Your task to perform on an android device: Search for logitech g933 on walmart, select the first entry, add it to the cart, then select checkout. Image 0: 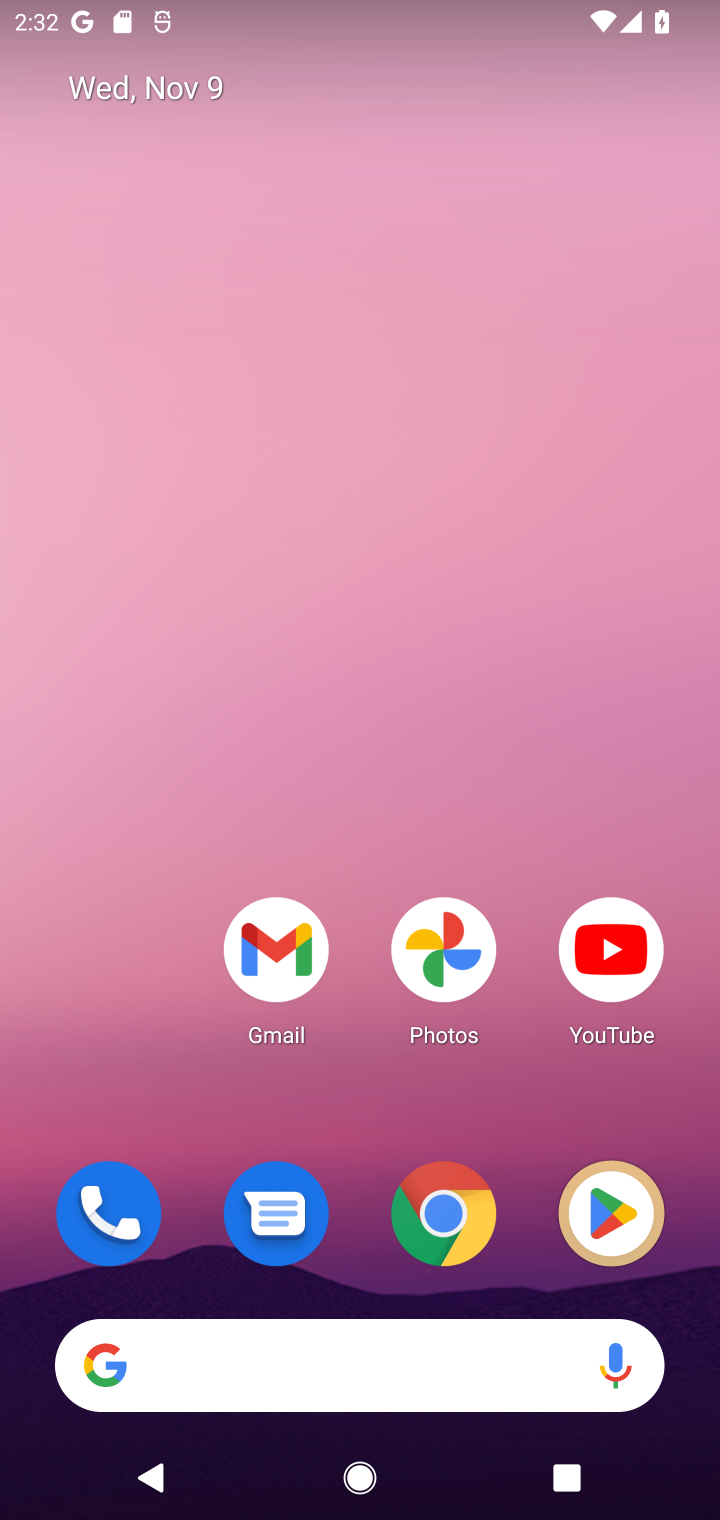
Step 0: click (447, 1214)
Your task to perform on an android device: Search for logitech g933 on walmart, select the first entry, add it to the cart, then select checkout. Image 1: 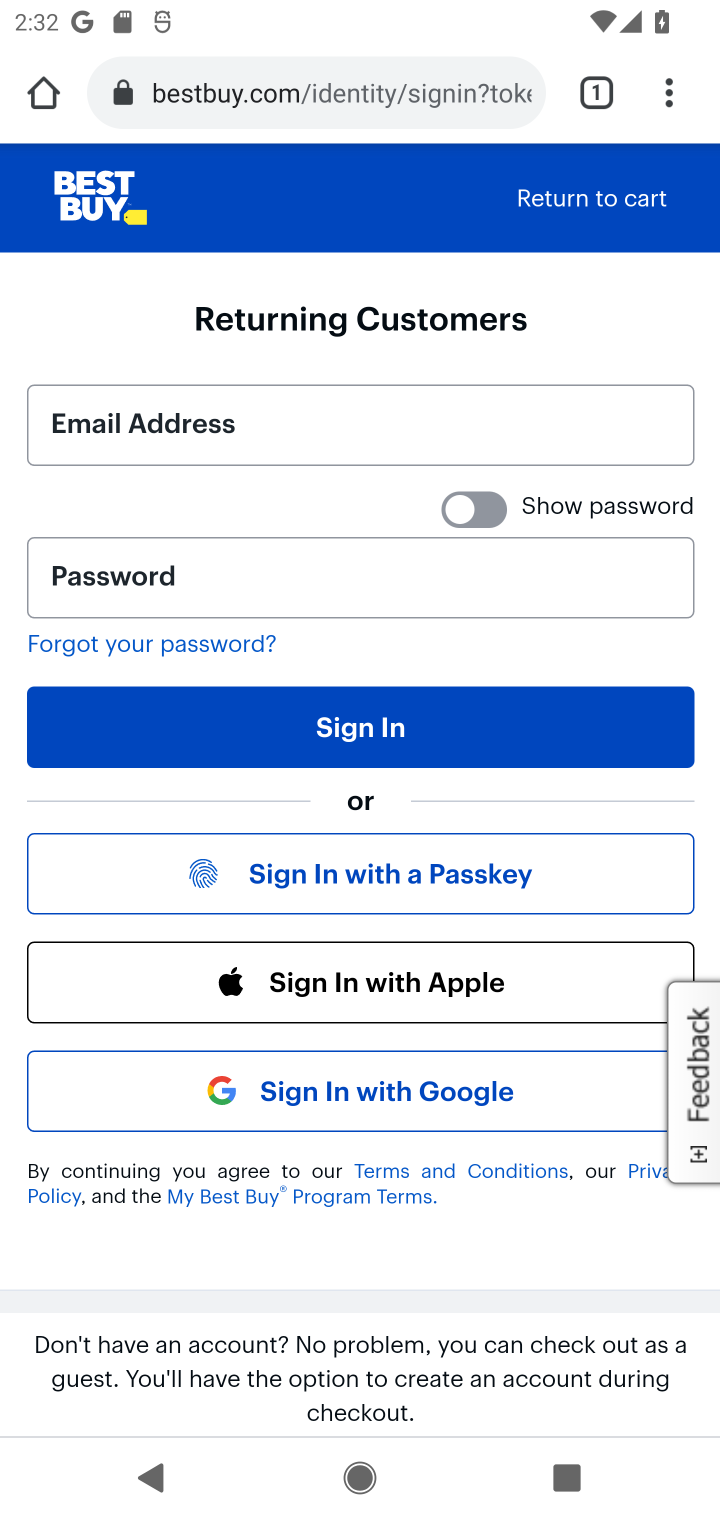
Step 1: click (462, 84)
Your task to perform on an android device: Search for logitech g933 on walmart, select the first entry, add it to the cart, then select checkout. Image 2: 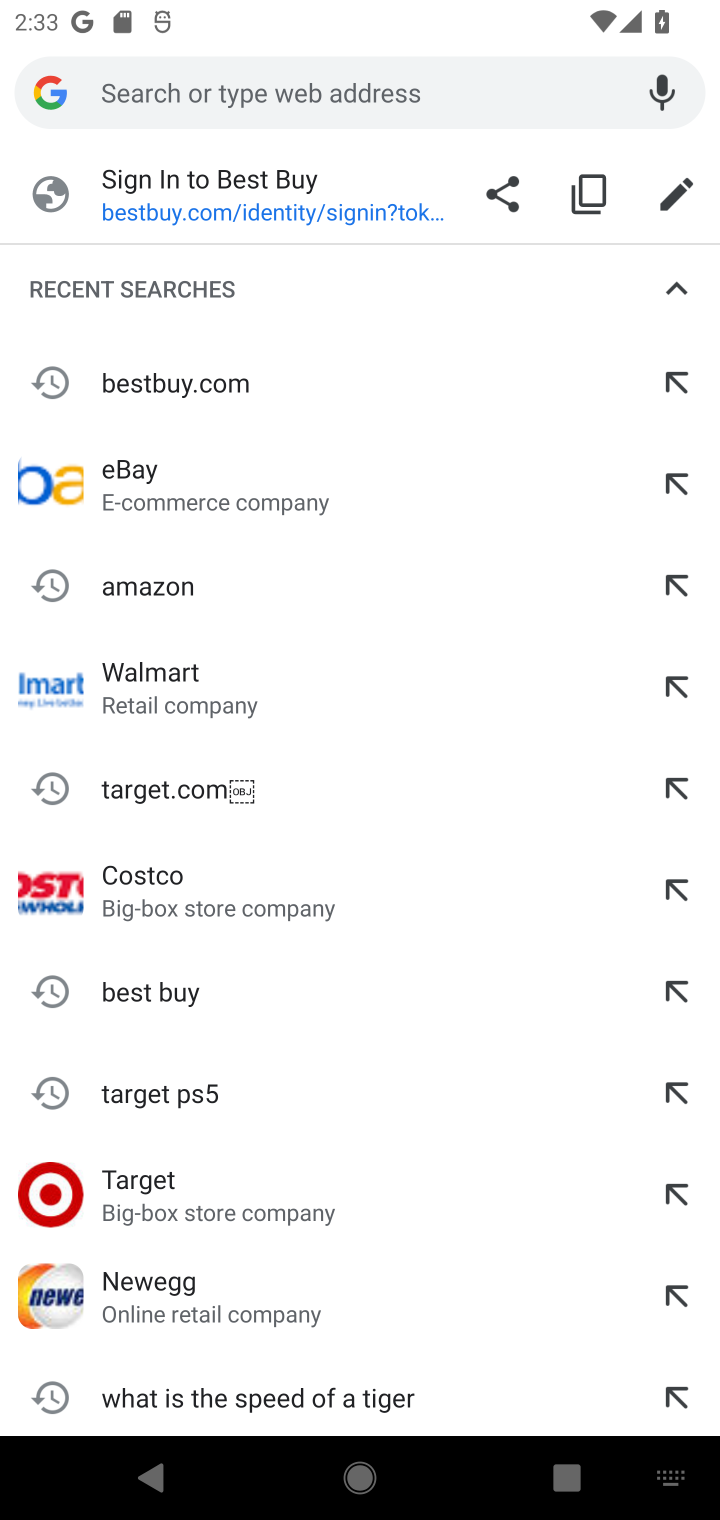
Step 2: type "walmart"
Your task to perform on an android device: Search for logitech g933 on walmart, select the first entry, add it to the cart, then select checkout. Image 3: 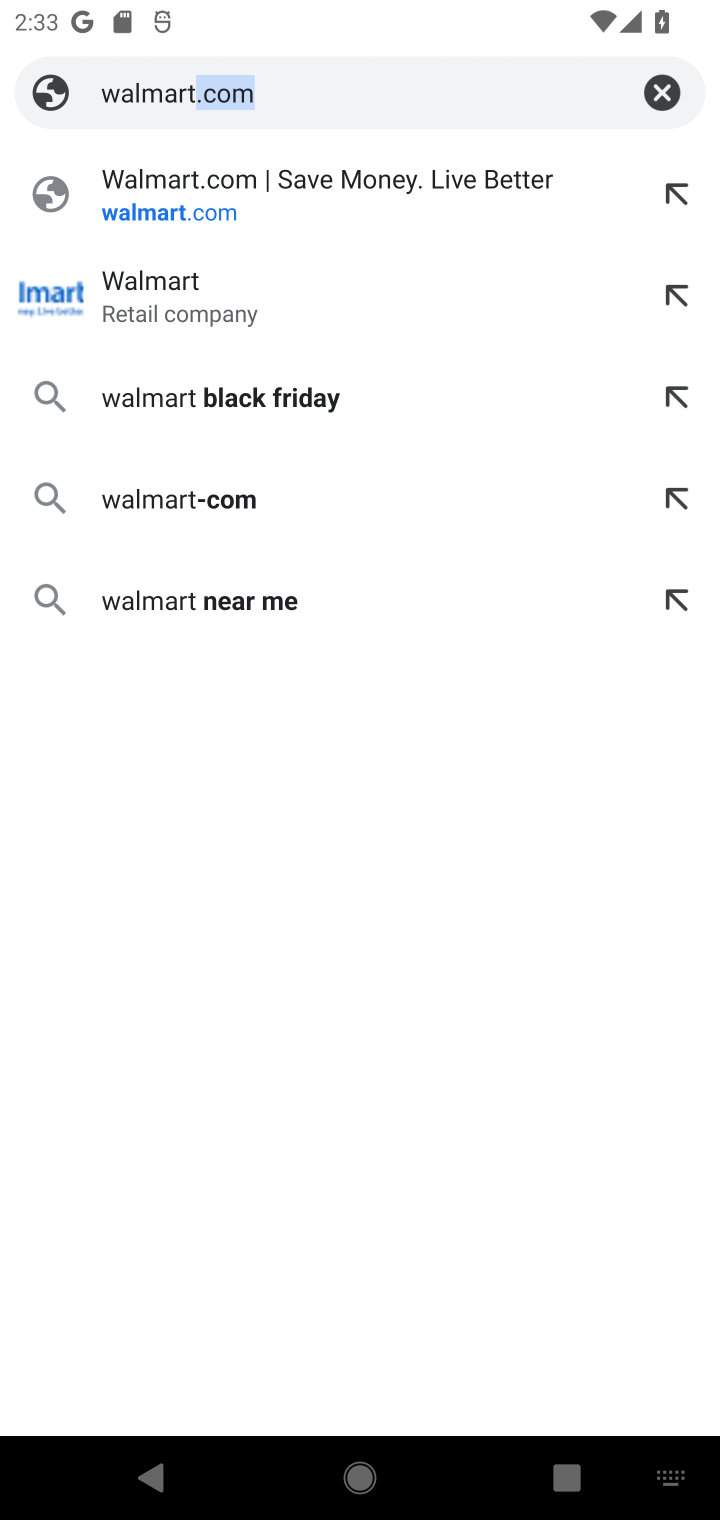
Step 3: click (179, 277)
Your task to perform on an android device: Search for logitech g933 on walmart, select the first entry, add it to the cart, then select checkout. Image 4: 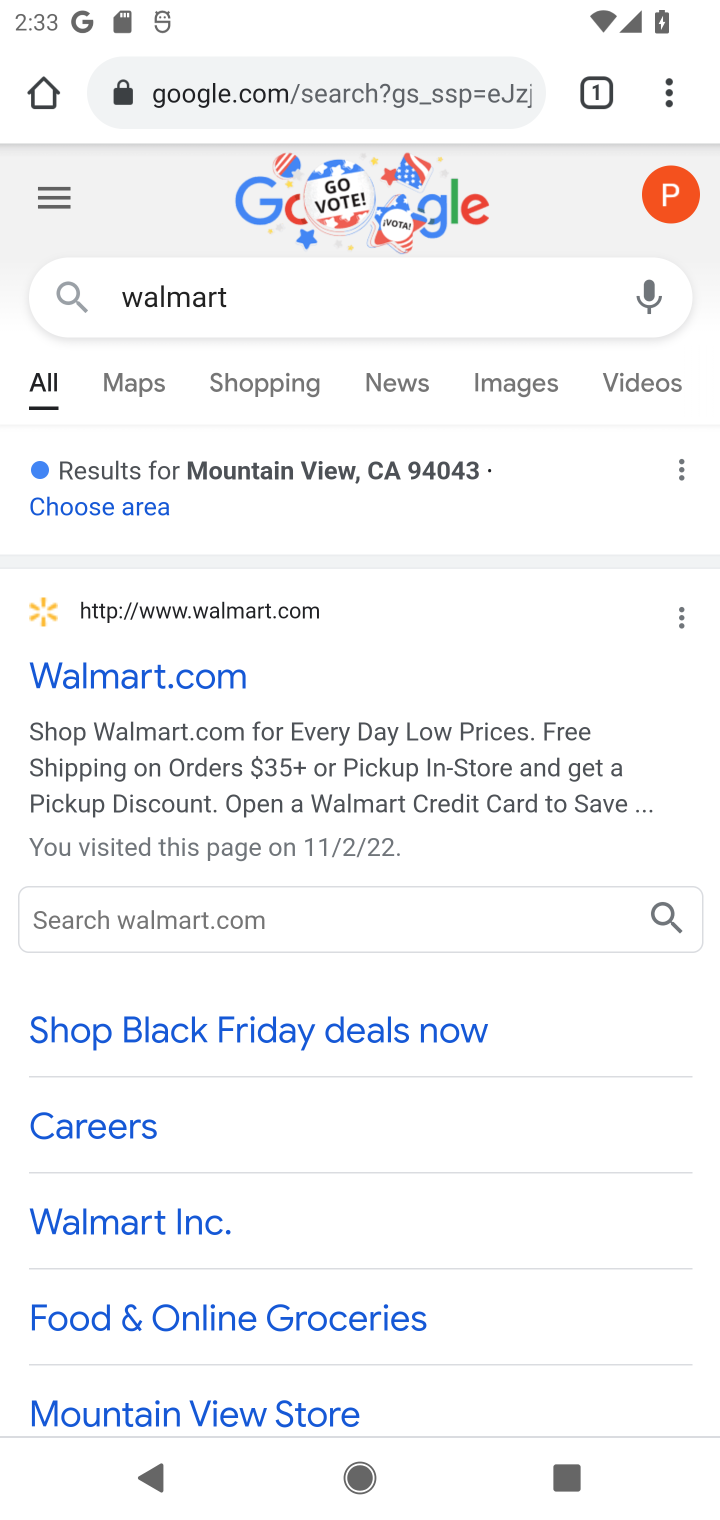
Step 4: click (126, 673)
Your task to perform on an android device: Search for logitech g933 on walmart, select the first entry, add it to the cart, then select checkout. Image 5: 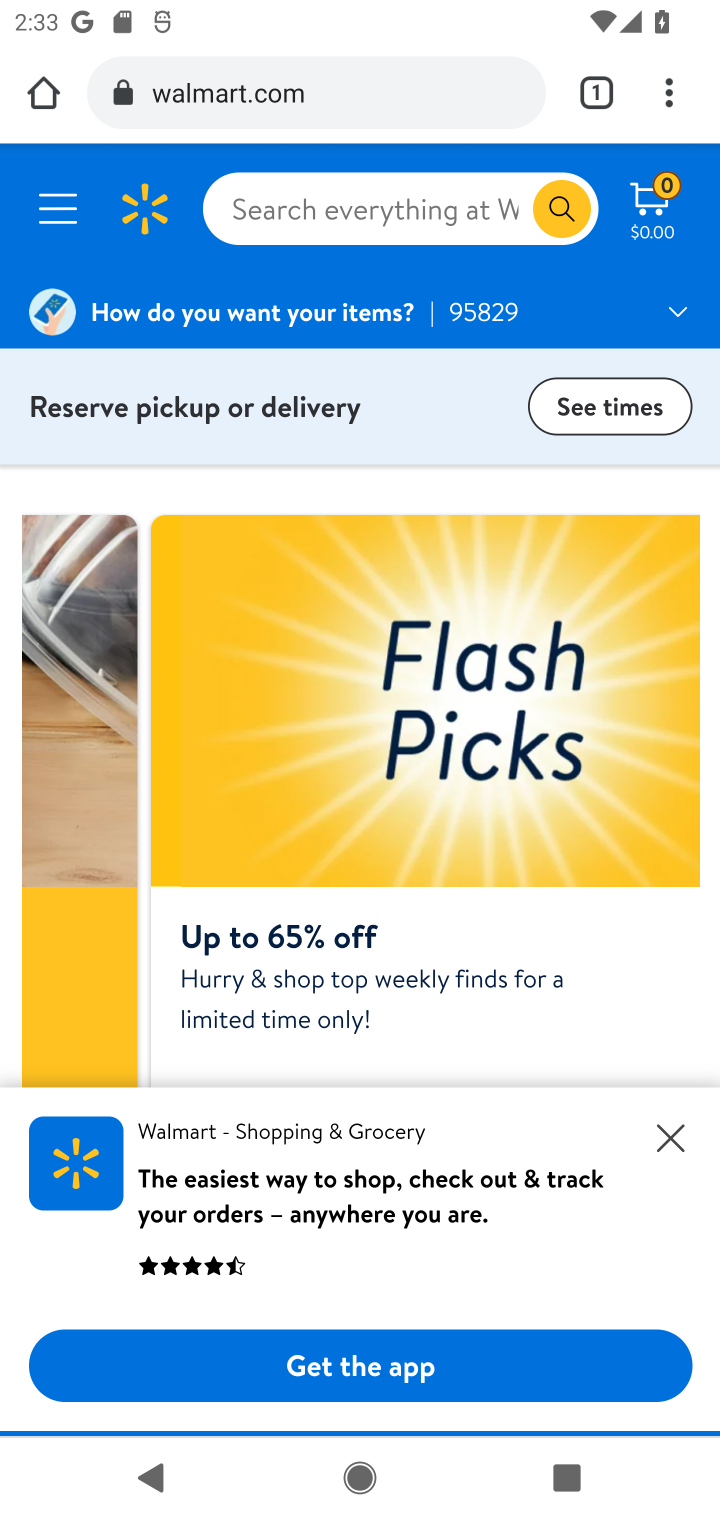
Step 5: click (386, 222)
Your task to perform on an android device: Search for logitech g933 on walmart, select the first entry, add it to the cart, then select checkout. Image 6: 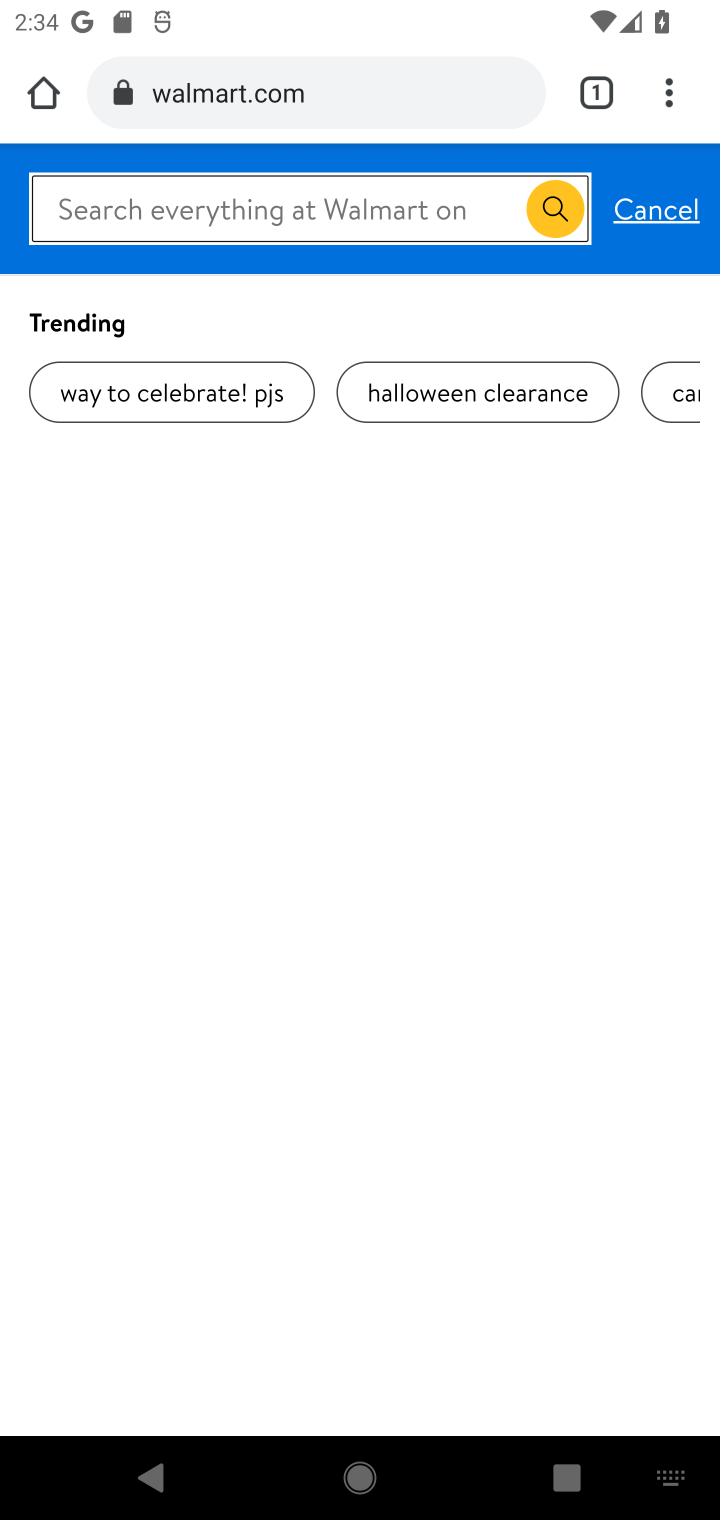
Step 6: type "logitech g933"
Your task to perform on an android device: Search for logitech g933 on walmart, select the first entry, add it to the cart, then select checkout. Image 7: 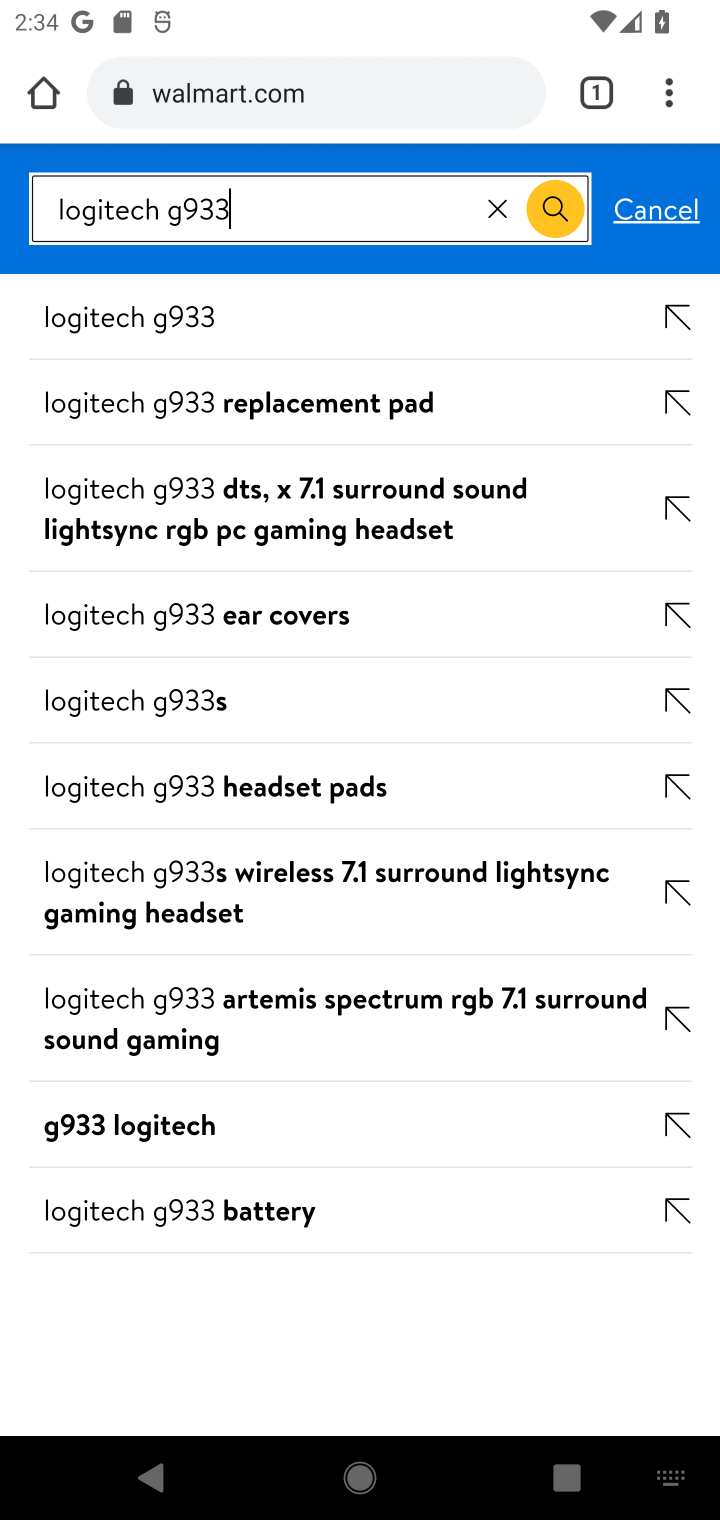
Step 7: click (201, 321)
Your task to perform on an android device: Search for logitech g933 on walmart, select the first entry, add it to the cart, then select checkout. Image 8: 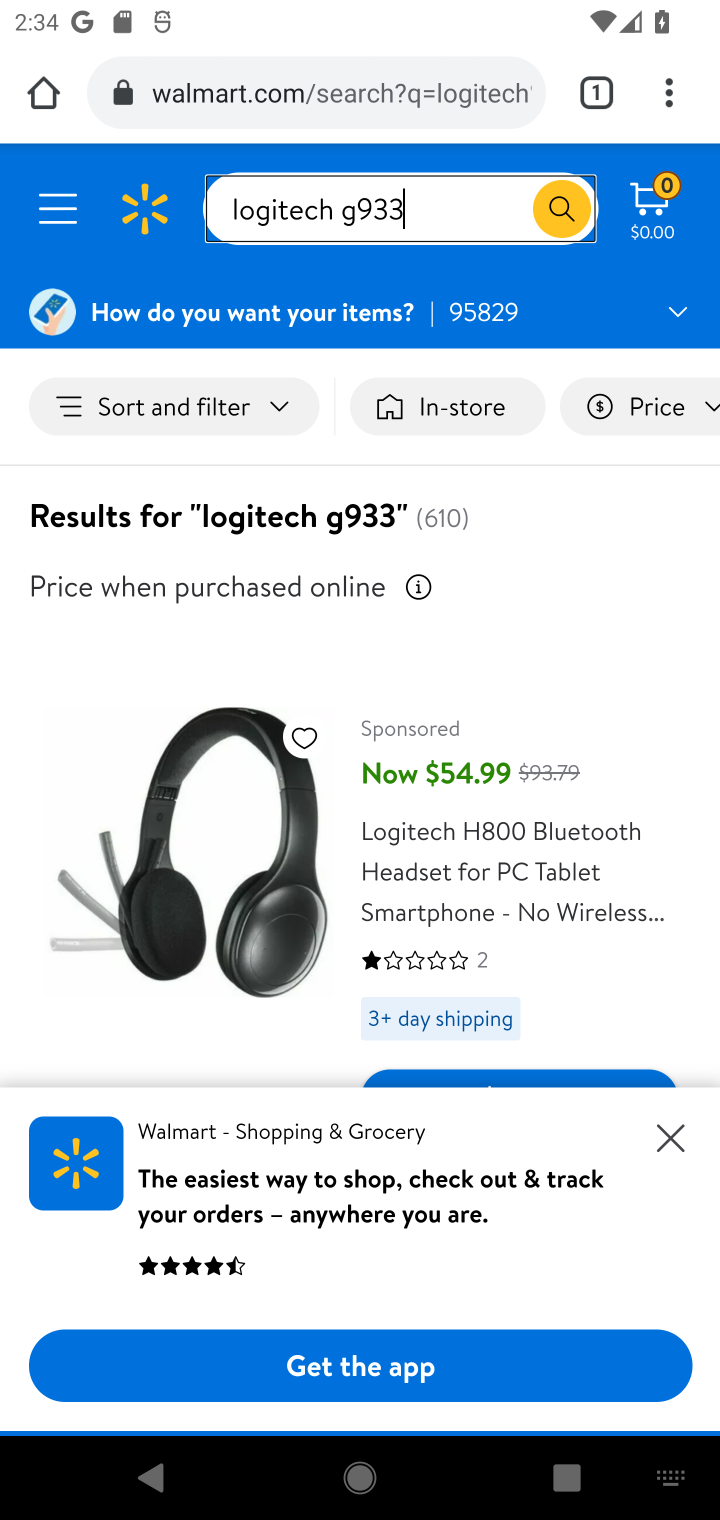
Step 8: drag from (573, 1010) to (575, 682)
Your task to perform on an android device: Search for logitech g933 on walmart, select the first entry, add it to the cart, then select checkout. Image 9: 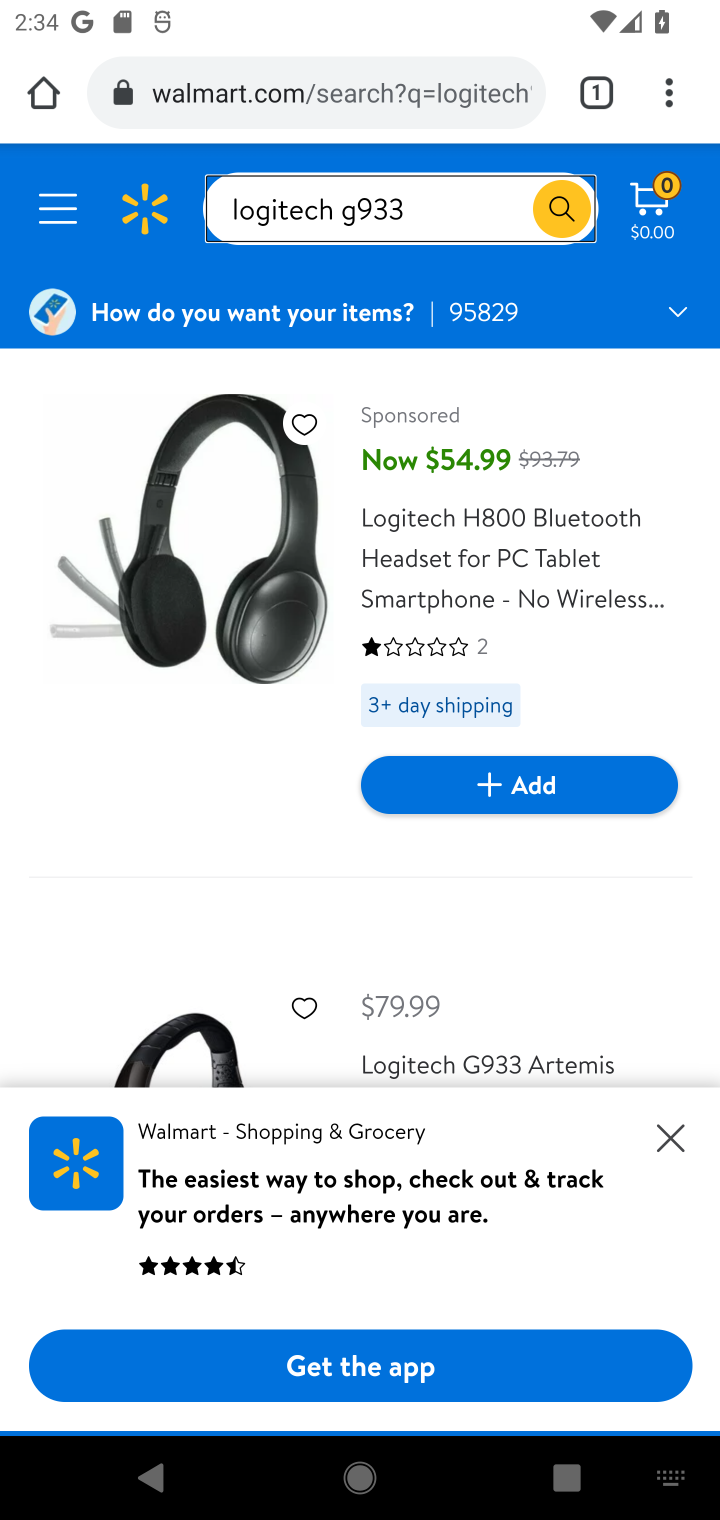
Step 9: click (522, 788)
Your task to perform on an android device: Search for logitech g933 on walmart, select the first entry, add it to the cart, then select checkout. Image 10: 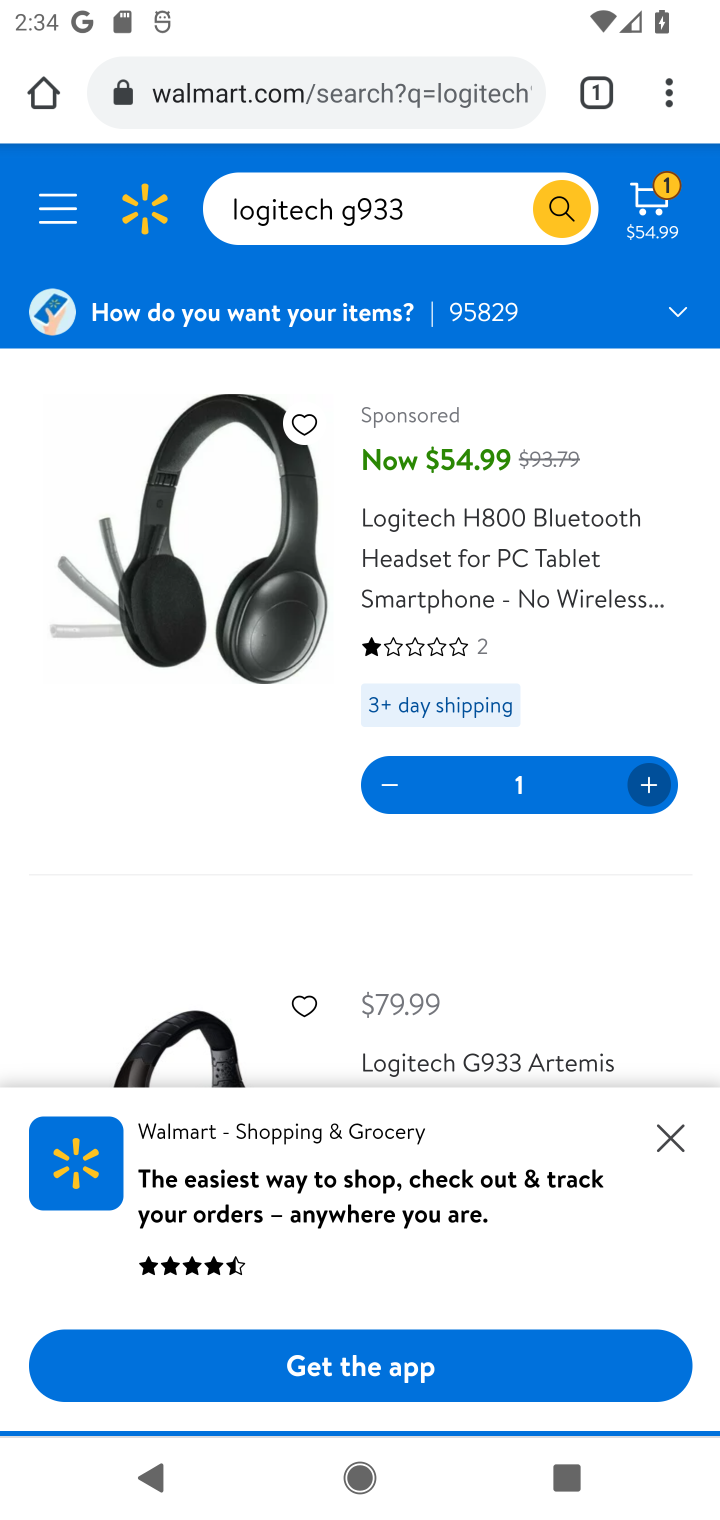
Step 10: click (652, 197)
Your task to perform on an android device: Search for logitech g933 on walmart, select the first entry, add it to the cart, then select checkout. Image 11: 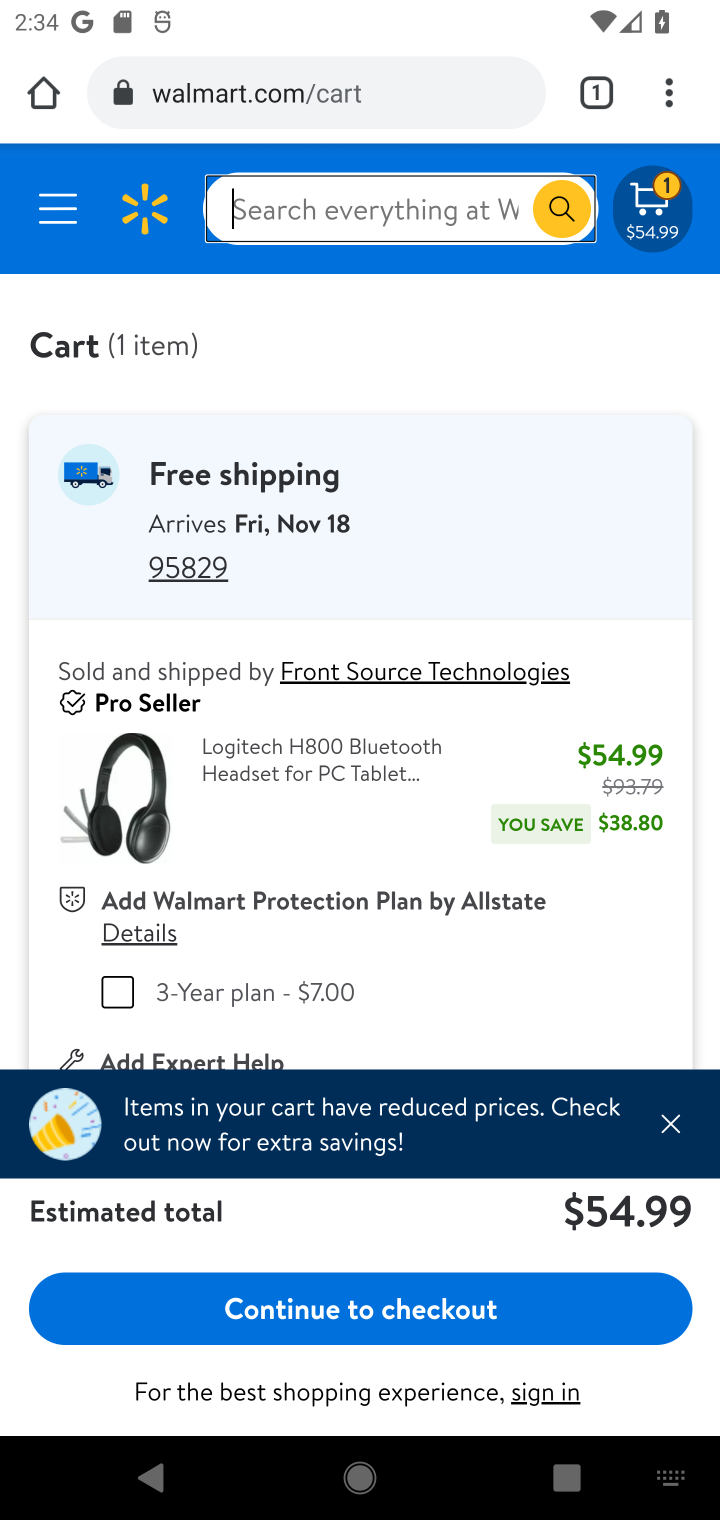
Step 11: click (350, 1310)
Your task to perform on an android device: Search for logitech g933 on walmart, select the first entry, add it to the cart, then select checkout. Image 12: 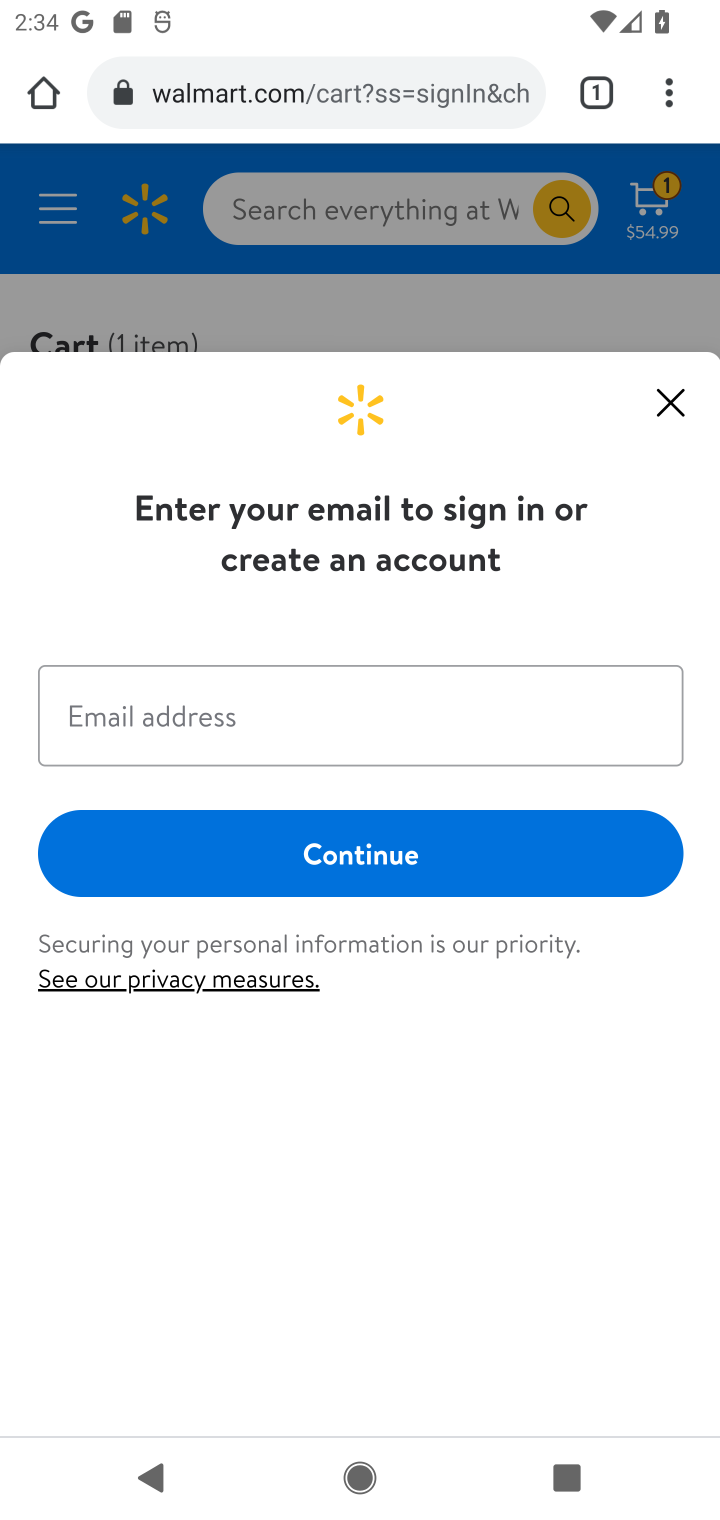
Step 12: task complete